Your task to perform on an android device: Turn off the flashlight Image 0: 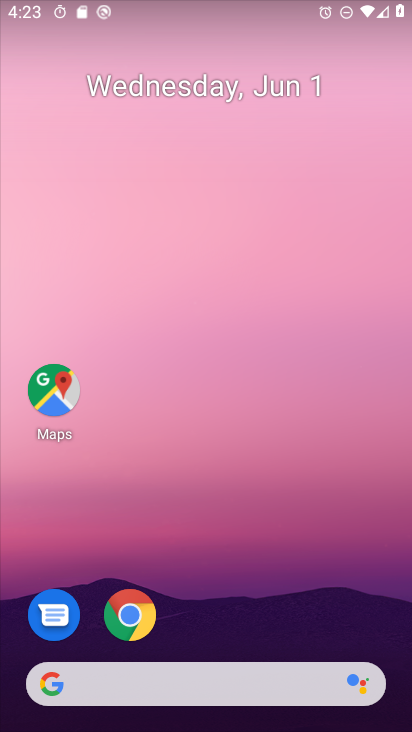
Step 0: drag from (270, 622) to (200, 175)
Your task to perform on an android device: Turn off the flashlight Image 1: 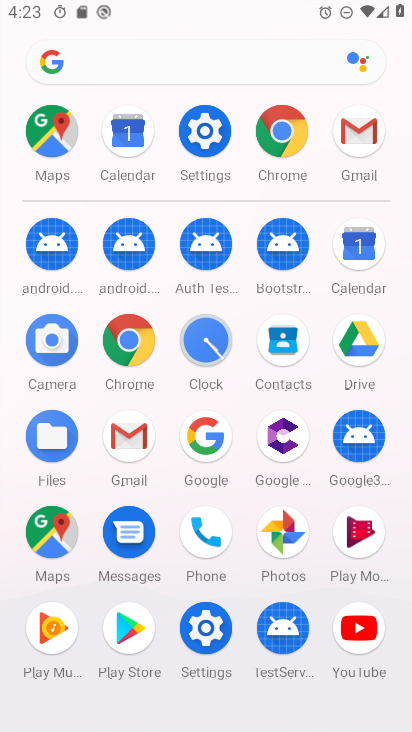
Step 1: task complete